Your task to perform on an android device: Search for "dell xps" on target.com, select the first entry, and add it to the cart. Image 0: 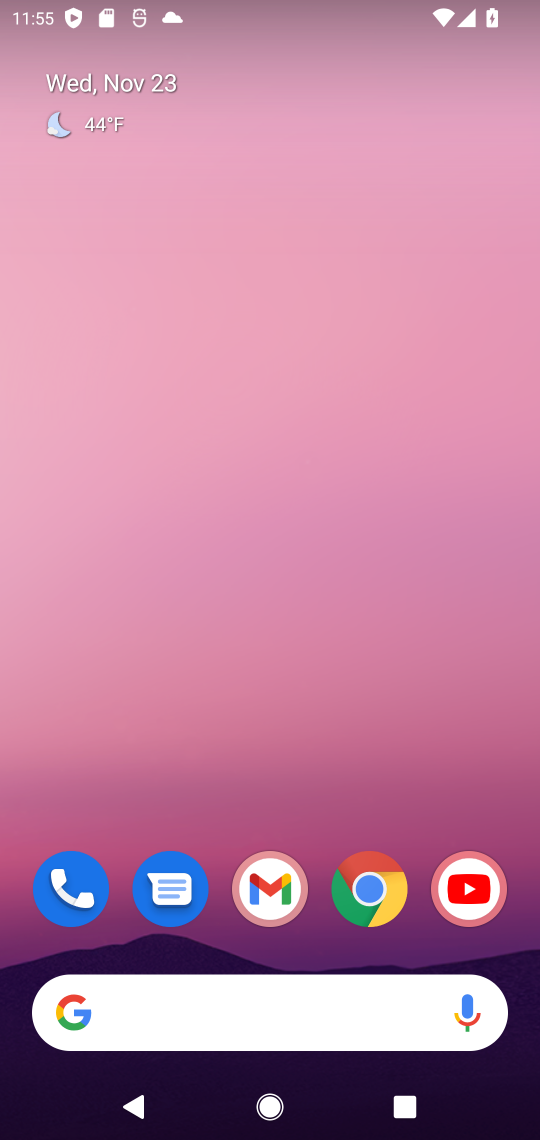
Step 0: click (378, 902)
Your task to perform on an android device: Search for "dell xps" on target.com, select the first entry, and add it to the cart. Image 1: 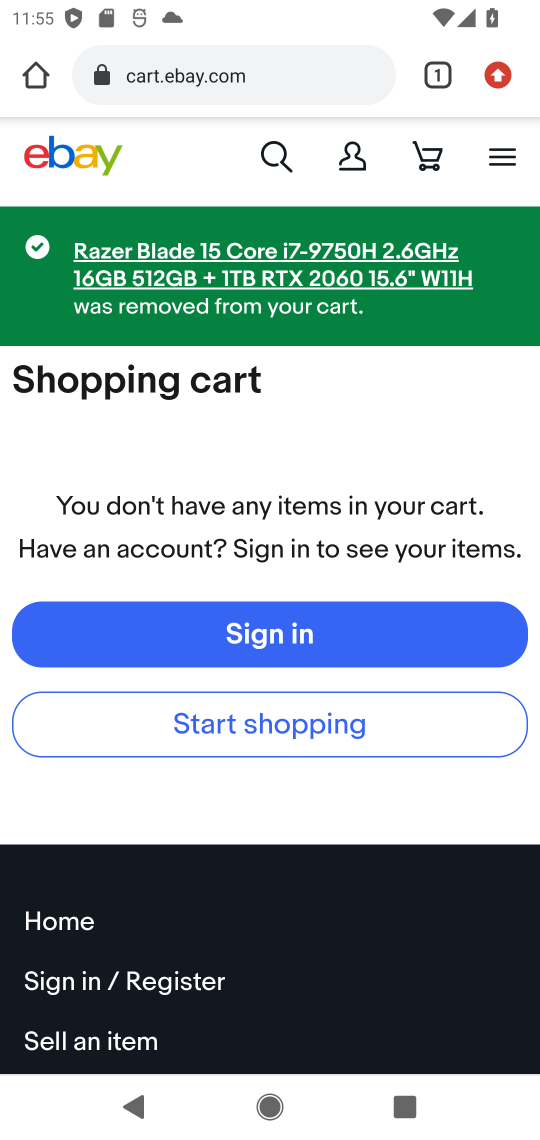
Step 1: click (181, 73)
Your task to perform on an android device: Search for "dell xps" on target.com, select the first entry, and add it to the cart. Image 2: 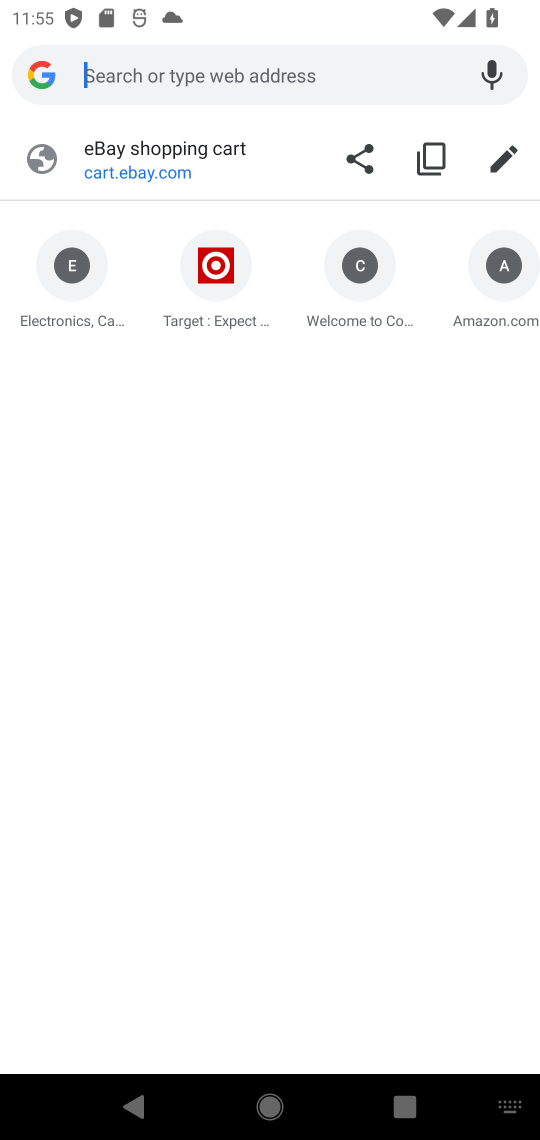
Step 2: click (206, 275)
Your task to perform on an android device: Search for "dell xps" on target.com, select the first entry, and add it to the cart. Image 3: 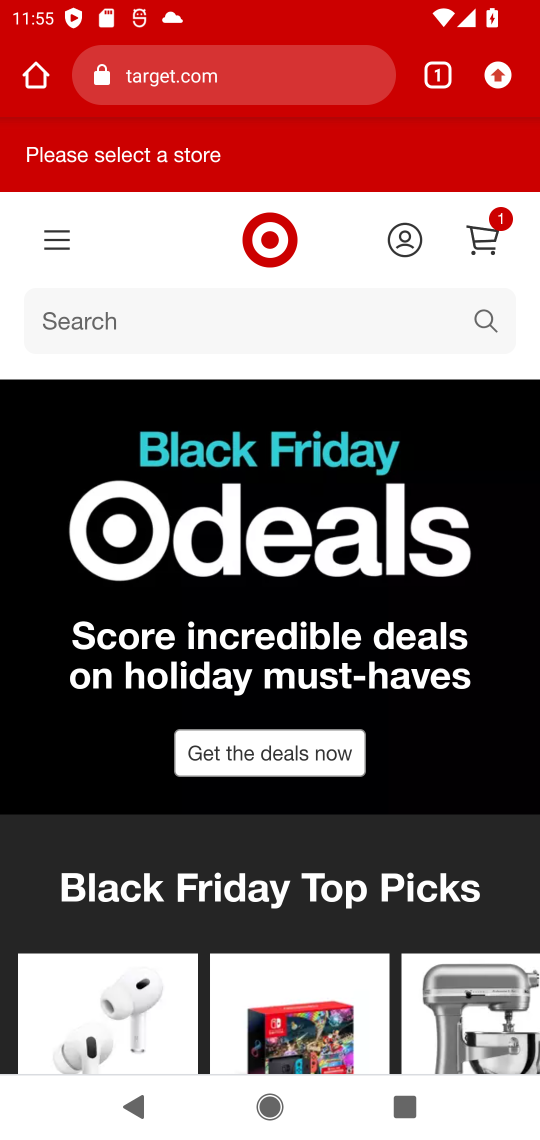
Step 3: click (492, 321)
Your task to perform on an android device: Search for "dell xps" on target.com, select the first entry, and add it to the cart. Image 4: 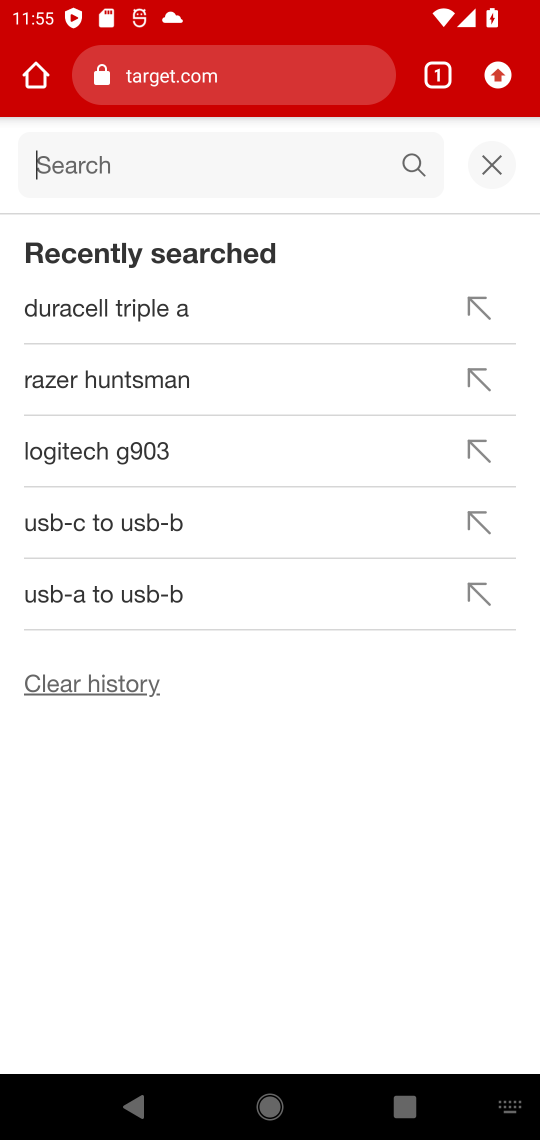
Step 4: type "dell xps"
Your task to perform on an android device: Search for "dell xps" on target.com, select the first entry, and add it to the cart. Image 5: 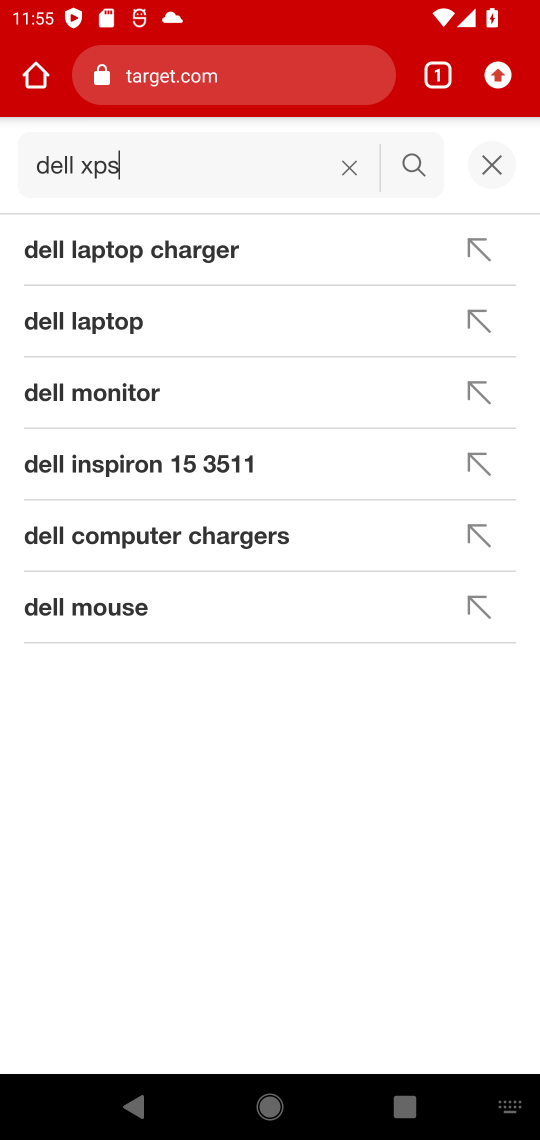
Step 5: click (411, 166)
Your task to perform on an android device: Search for "dell xps" on target.com, select the first entry, and add it to the cart. Image 6: 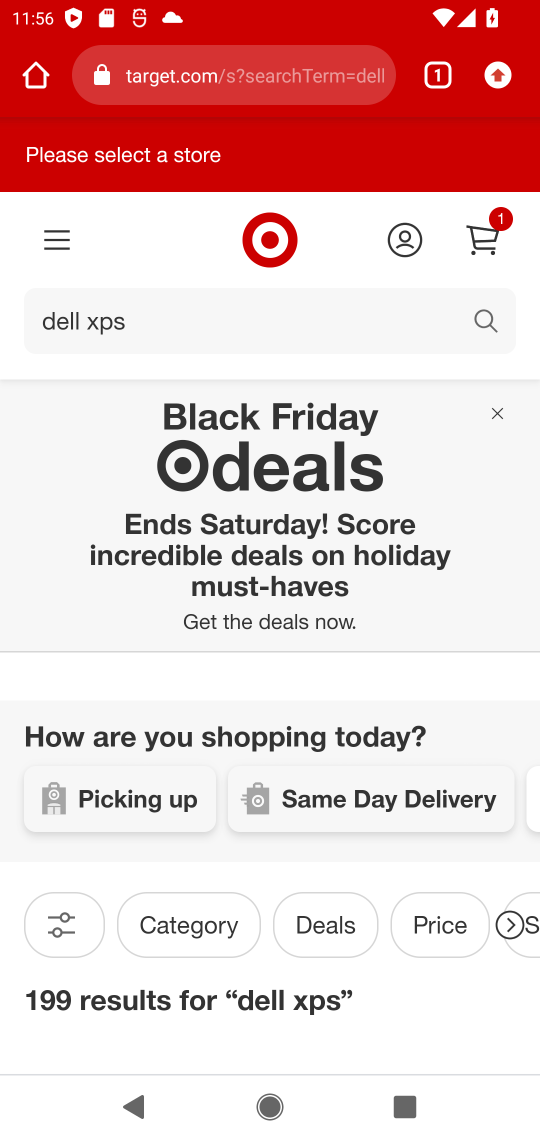
Step 6: task complete